Your task to perform on an android device: toggle wifi Image 0: 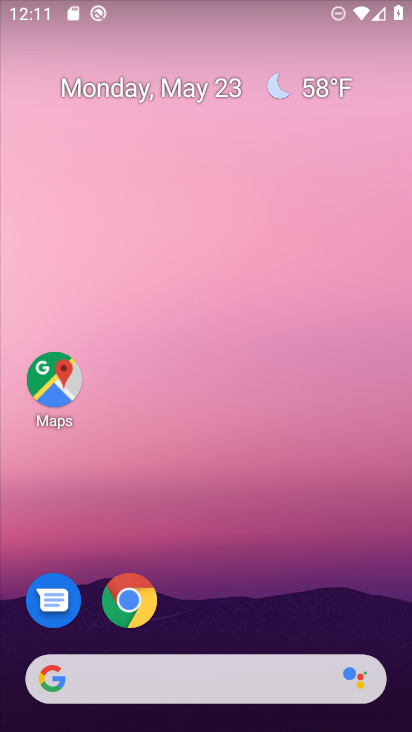
Step 0: drag from (286, 523) to (220, 116)
Your task to perform on an android device: toggle wifi Image 1: 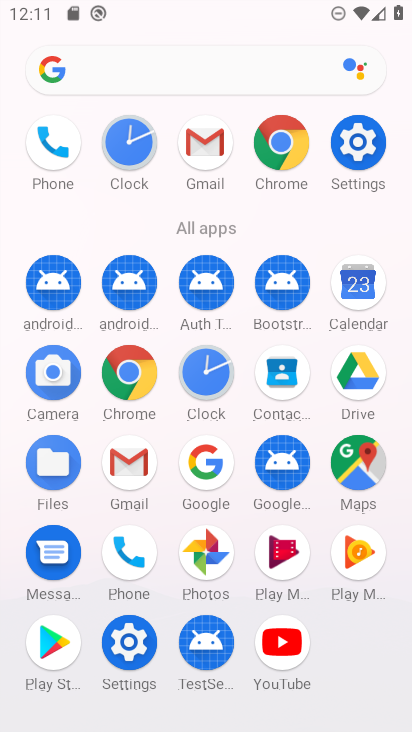
Step 1: click (364, 153)
Your task to perform on an android device: toggle wifi Image 2: 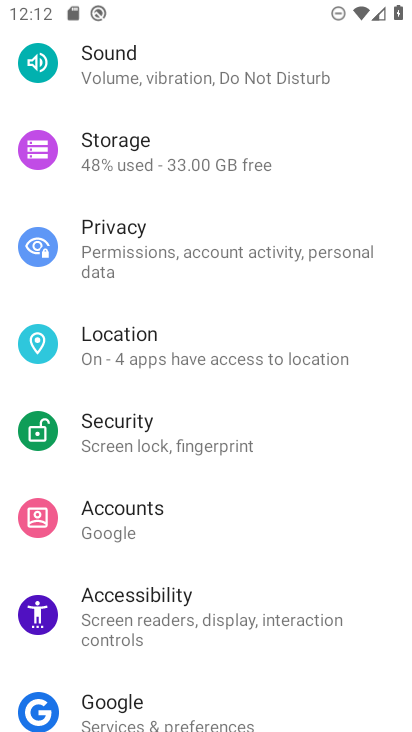
Step 2: drag from (155, 61) to (185, 449)
Your task to perform on an android device: toggle wifi Image 3: 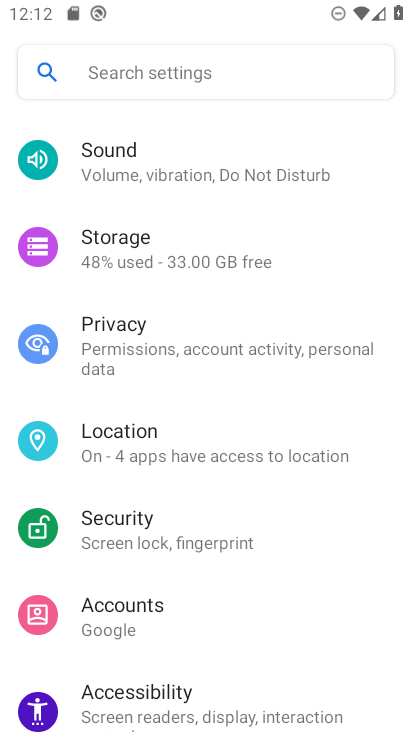
Step 3: drag from (180, 235) to (185, 462)
Your task to perform on an android device: toggle wifi Image 4: 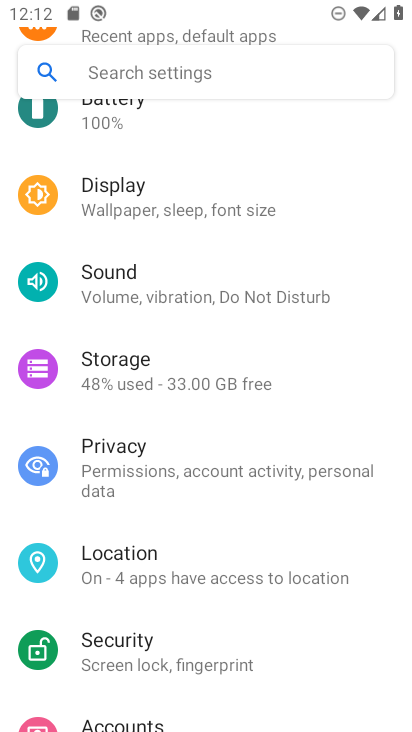
Step 4: drag from (188, 239) to (207, 560)
Your task to perform on an android device: toggle wifi Image 5: 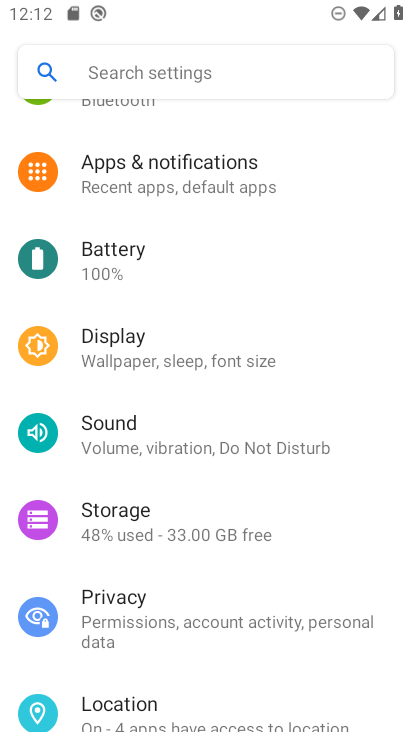
Step 5: drag from (173, 151) to (181, 586)
Your task to perform on an android device: toggle wifi Image 6: 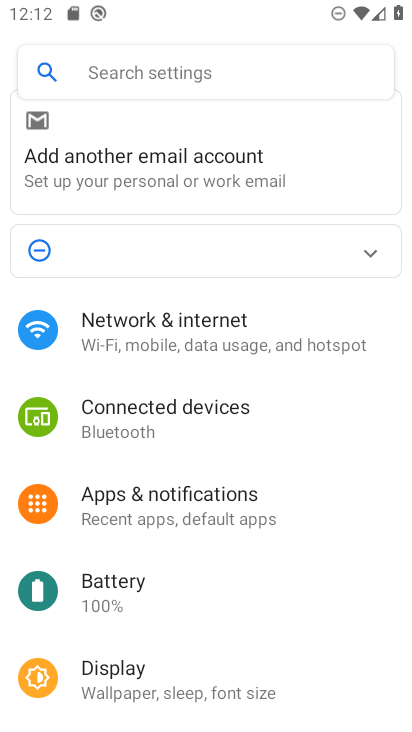
Step 6: click (189, 326)
Your task to perform on an android device: toggle wifi Image 7: 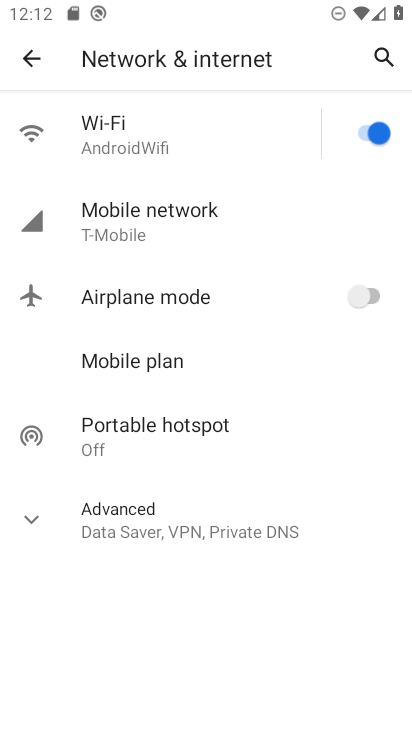
Step 7: click (129, 140)
Your task to perform on an android device: toggle wifi Image 8: 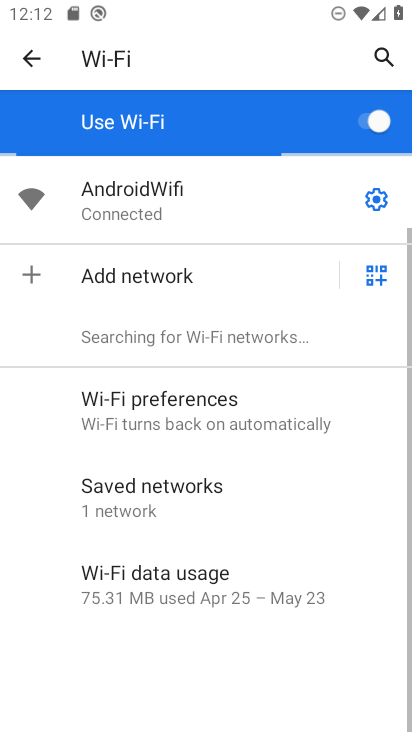
Step 8: click (345, 119)
Your task to perform on an android device: toggle wifi Image 9: 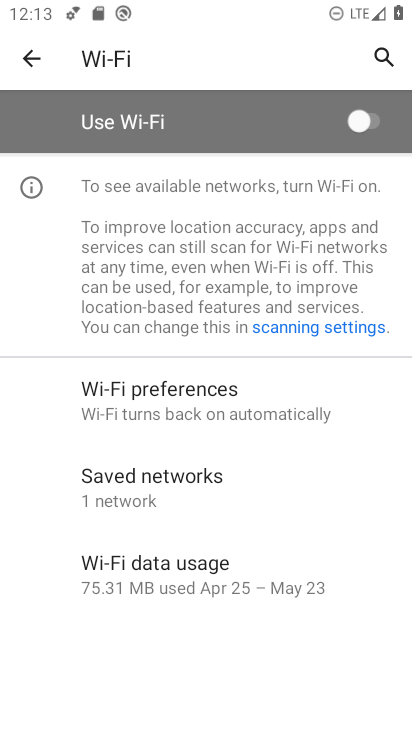
Step 9: task complete